Your task to perform on an android device: install app "Paramount+ | Peak Streaming" Image 0: 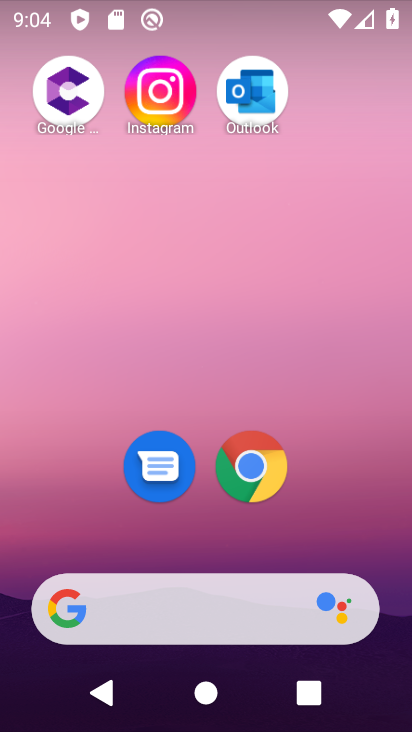
Step 0: drag from (248, 633) to (235, 78)
Your task to perform on an android device: install app "Paramount+ | Peak Streaming" Image 1: 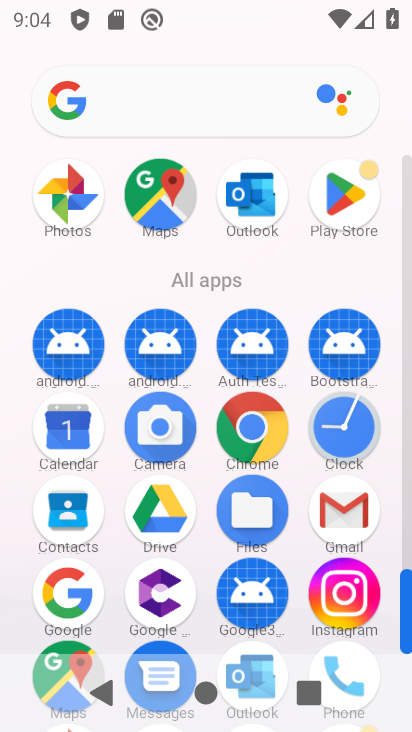
Step 1: click (355, 190)
Your task to perform on an android device: install app "Paramount+ | Peak Streaming" Image 2: 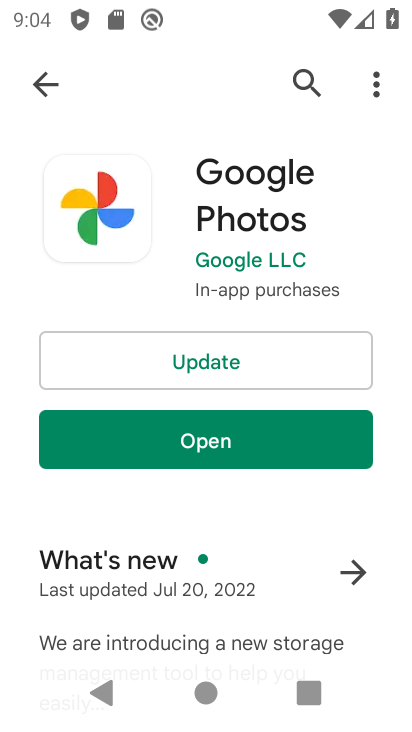
Step 2: click (300, 72)
Your task to perform on an android device: install app "Paramount+ | Peak Streaming" Image 3: 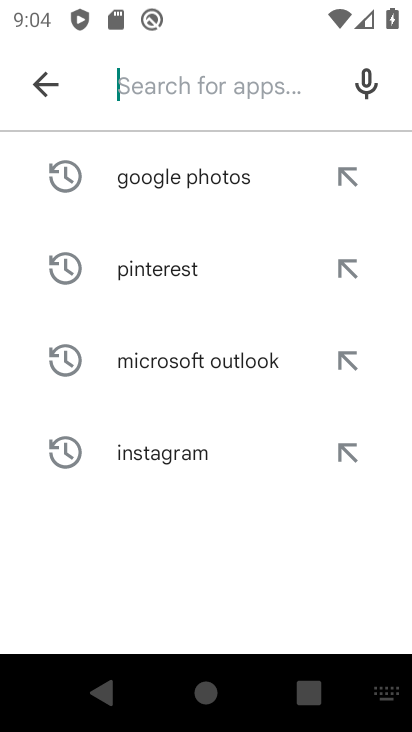
Step 3: type "Paramount+ | Peak Streaming"
Your task to perform on an android device: install app "Paramount+ | Peak Streaming" Image 4: 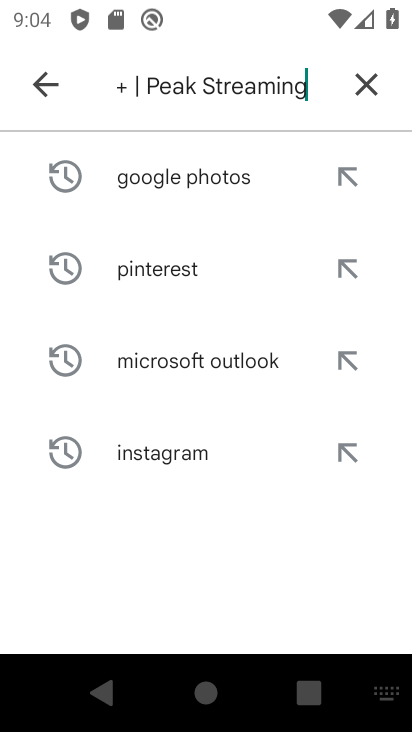
Step 4: type ""
Your task to perform on an android device: install app "Paramount+ | Peak Streaming" Image 5: 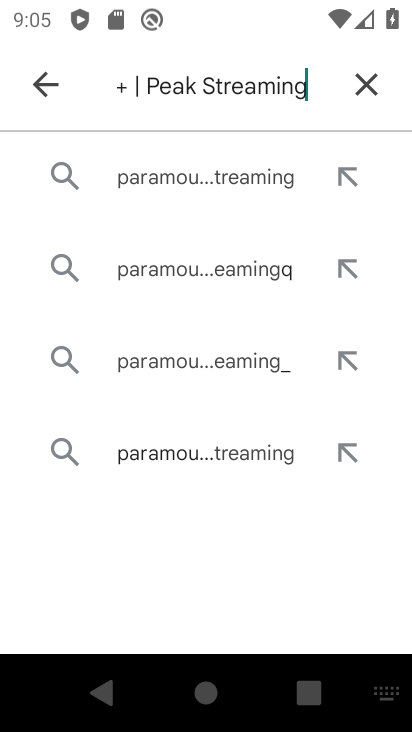
Step 5: click (187, 185)
Your task to perform on an android device: install app "Paramount+ | Peak Streaming" Image 6: 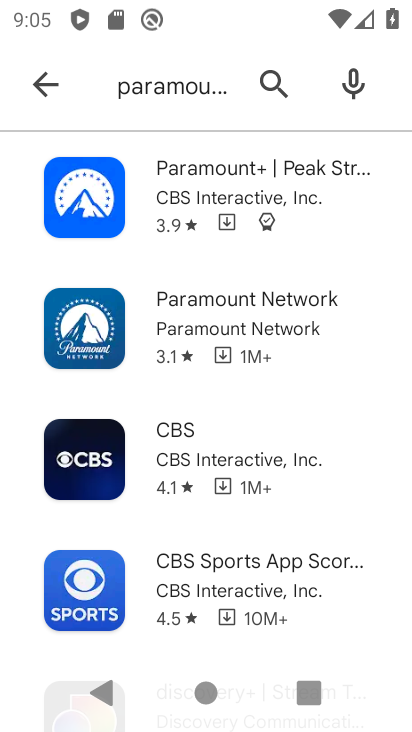
Step 6: click (215, 171)
Your task to perform on an android device: install app "Paramount+ | Peak Streaming" Image 7: 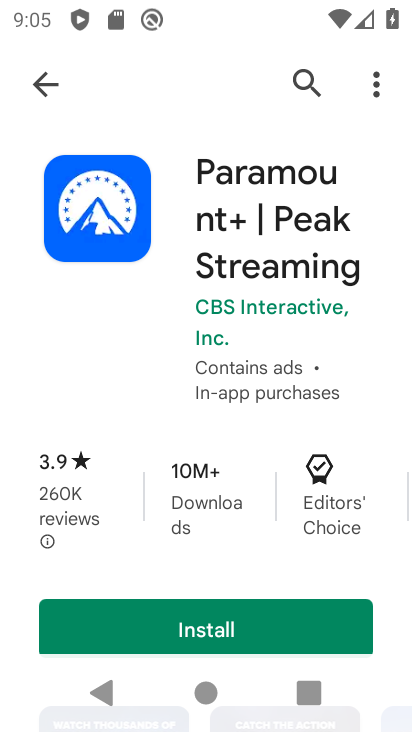
Step 7: click (234, 631)
Your task to perform on an android device: install app "Paramount+ | Peak Streaming" Image 8: 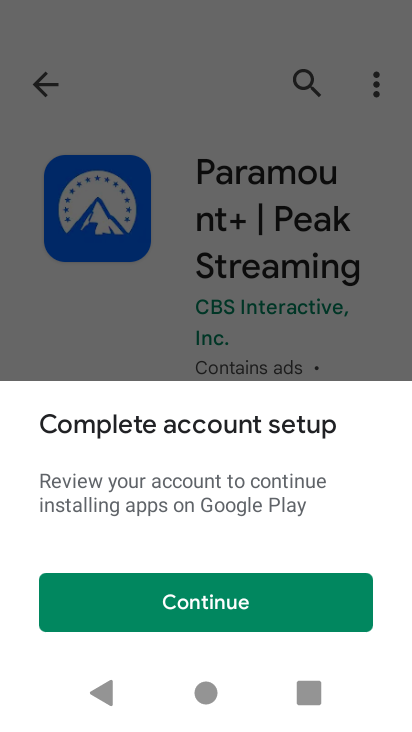
Step 8: click (253, 583)
Your task to perform on an android device: install app "Paramount+ | Peak Streaming" Image 9: 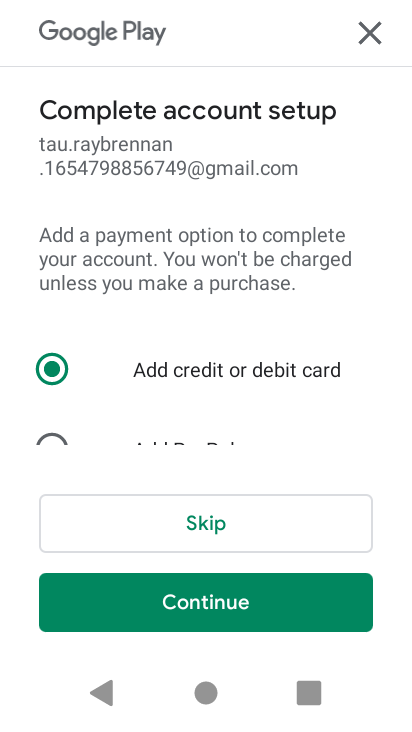
Step 9: click (175, 521)
Your task to perform on an android device: install app "Paramount+ | Peak Streaming" Image 10: 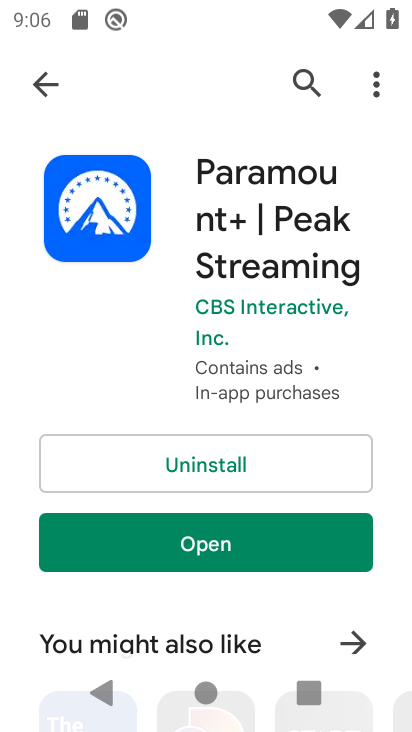
Step 10: task complete